Your task to perform on an android device: Search for "beats solo 3" on newegg, select the first entry, and add it to the cart. Image 0: 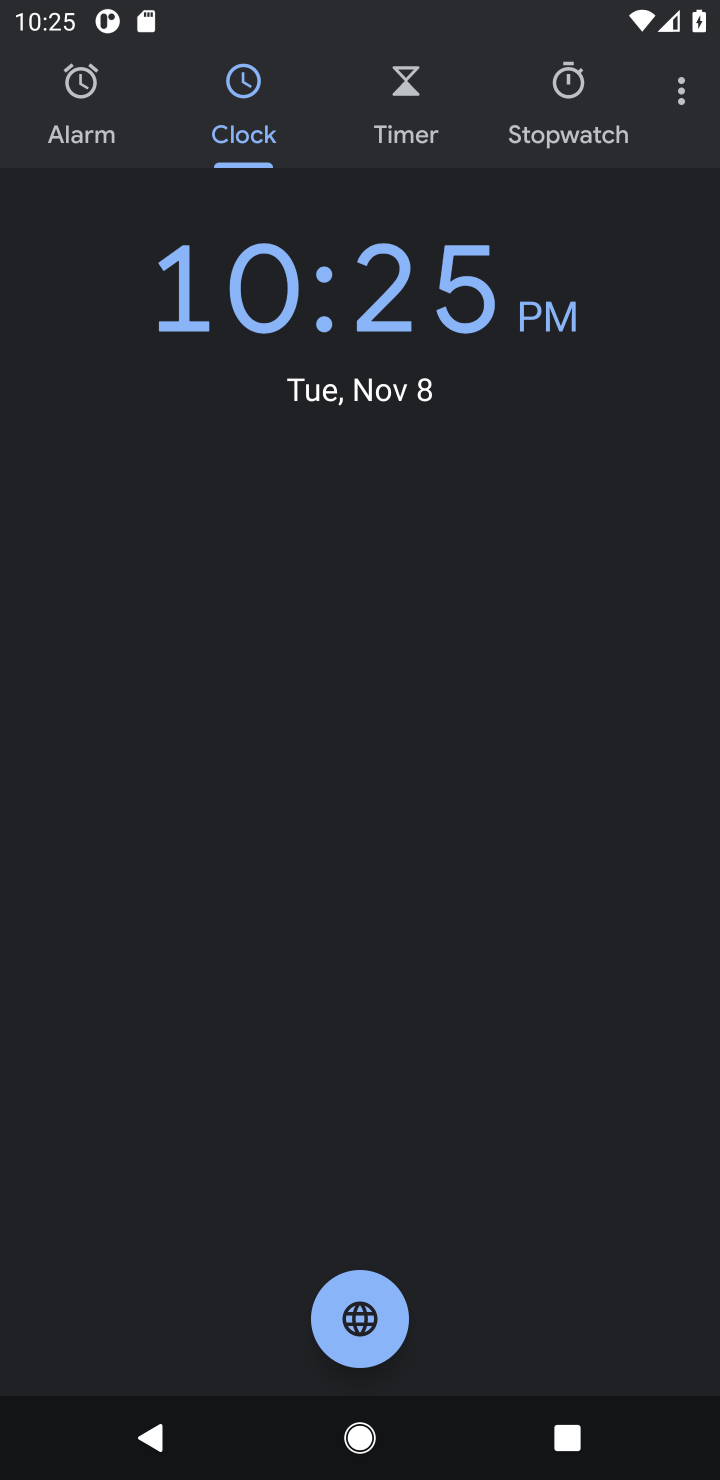
Step 0: press home button
Your task to perform on an android device: Search for "beats solo 3" on newegg, select the first entry, and add it to the cart. Image 1: 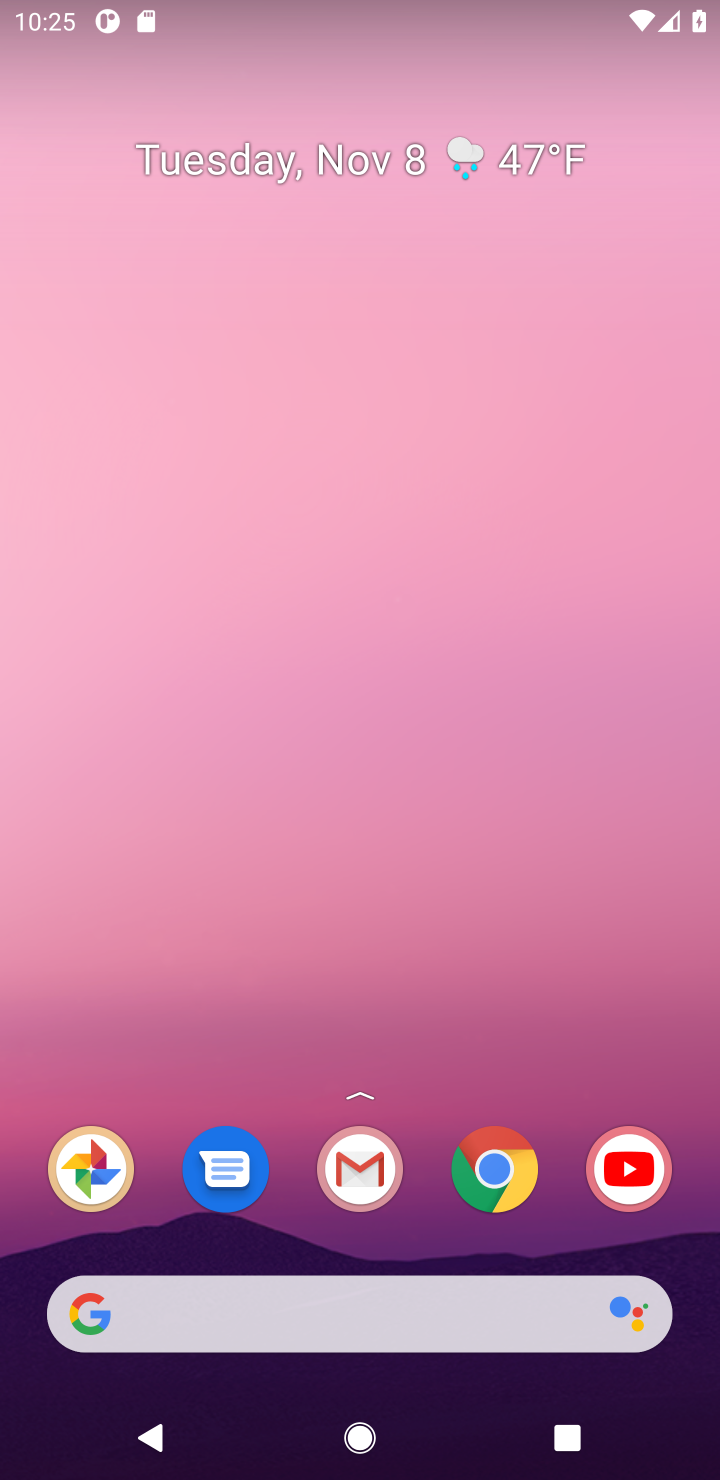
Step 1: click (484, 1180)
Your task to perform on an android device: Search for "beats solo 3" on newegg, select the first entry, and add it to the cart. Image 2: 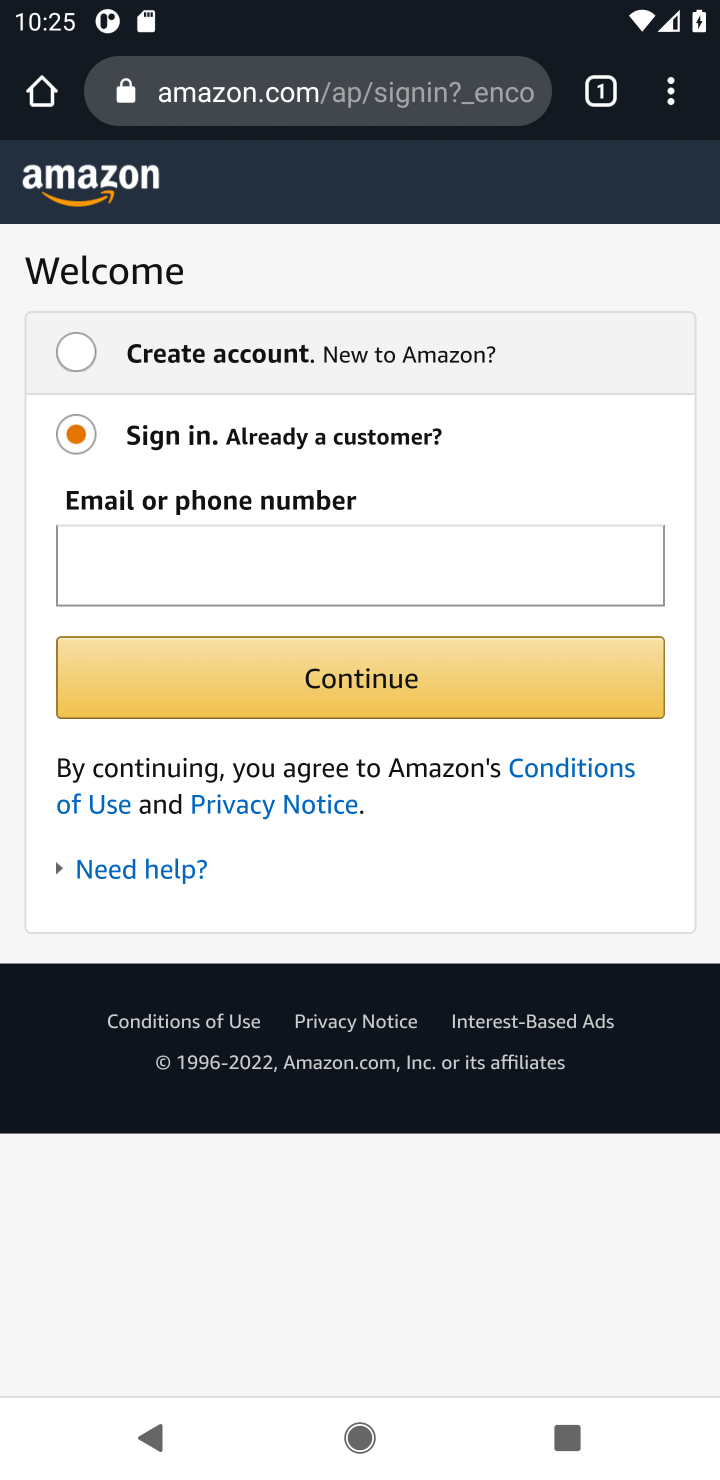
Step 2: click (447, 108)
Your task to perform on an android device: Search for "beats solo 3" on newegg, select the first entry, and add it to the cart. Image 3: 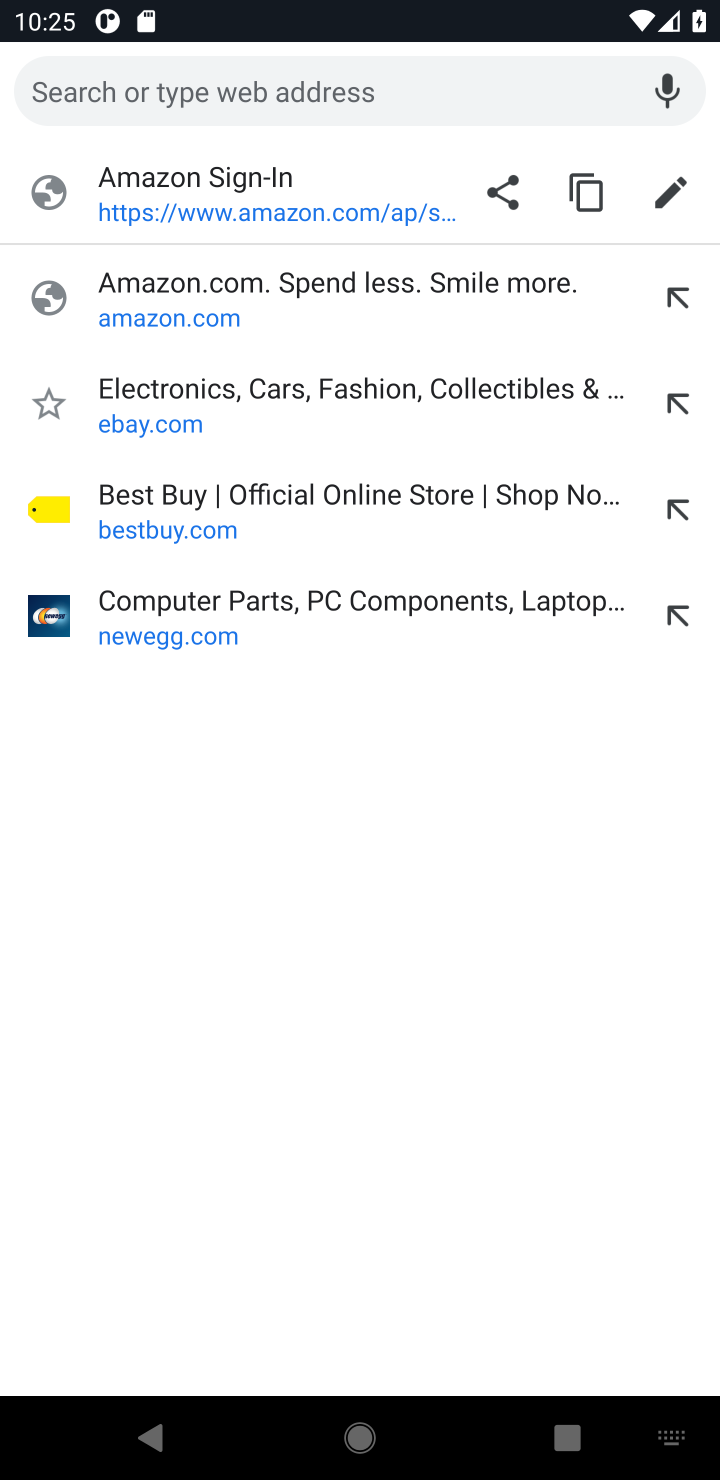
Step 3: type "newegg"
Your task to perform on an android device: Search for "beats solo 3" on newegg, select the first entry, and add it to the cart. Image 4: 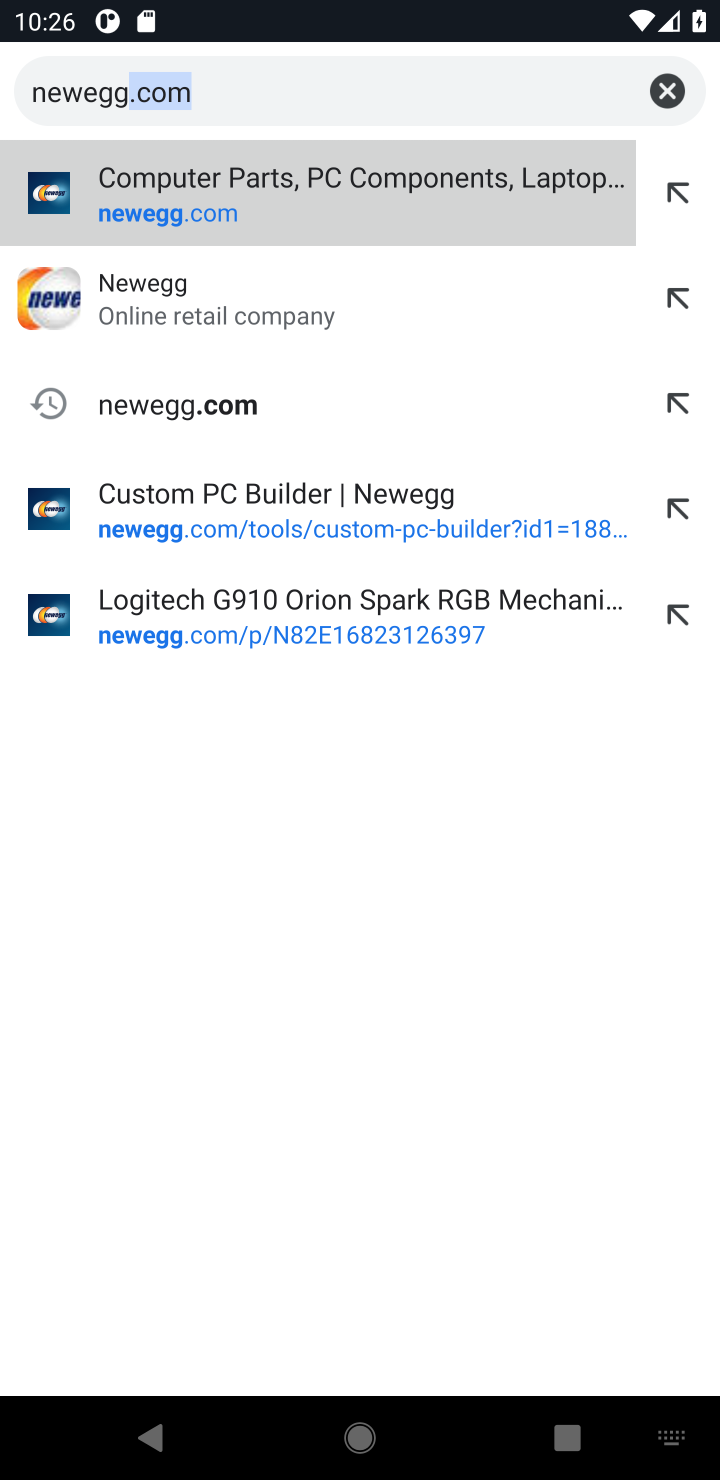
Step 4: click (472, 100)
Your task to perform on an android device: Search for "beats solo 3" on newegg, select the first entry, and add it to the cart. Image 5: 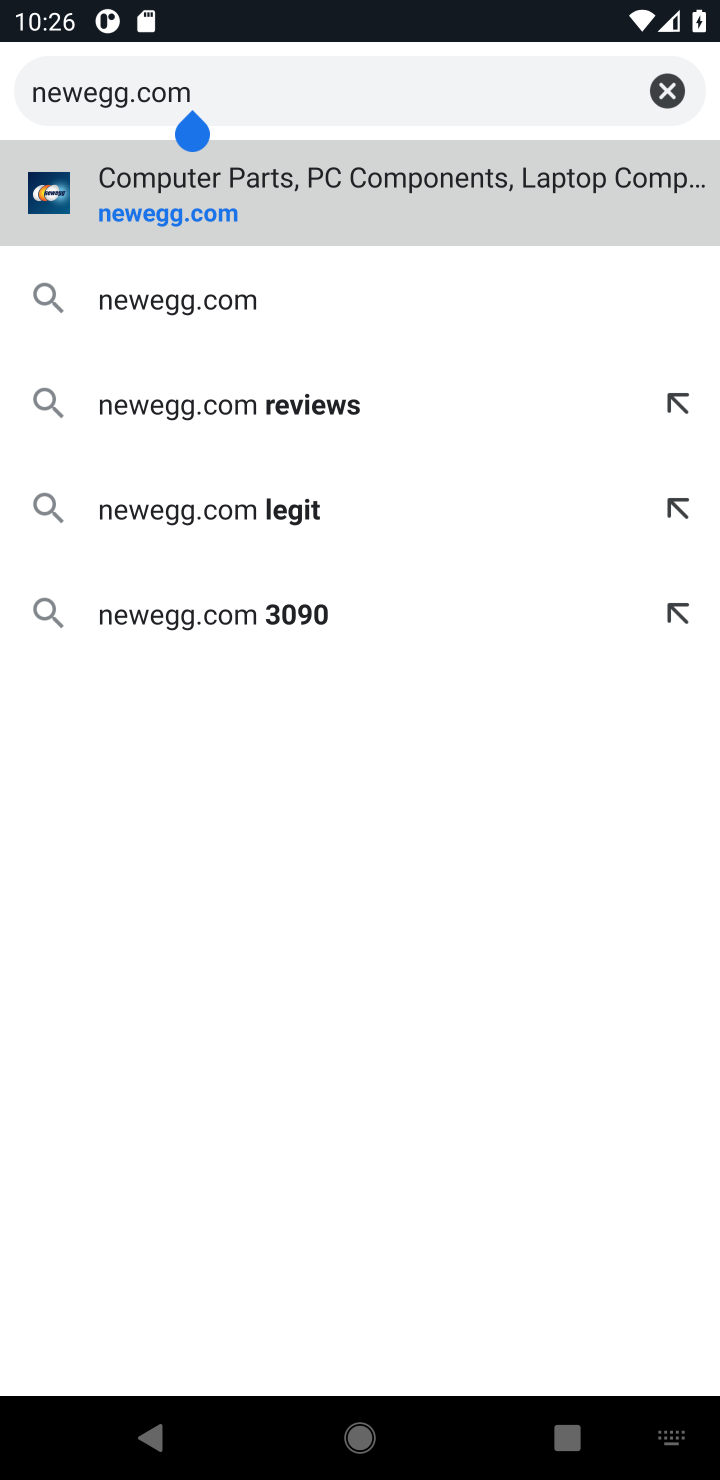
Step 5: click (225, 295)
Your task to perform on an android device: Search for "beats solo 3" on newegg, select the first entry, and add it to the cart. Image 6: 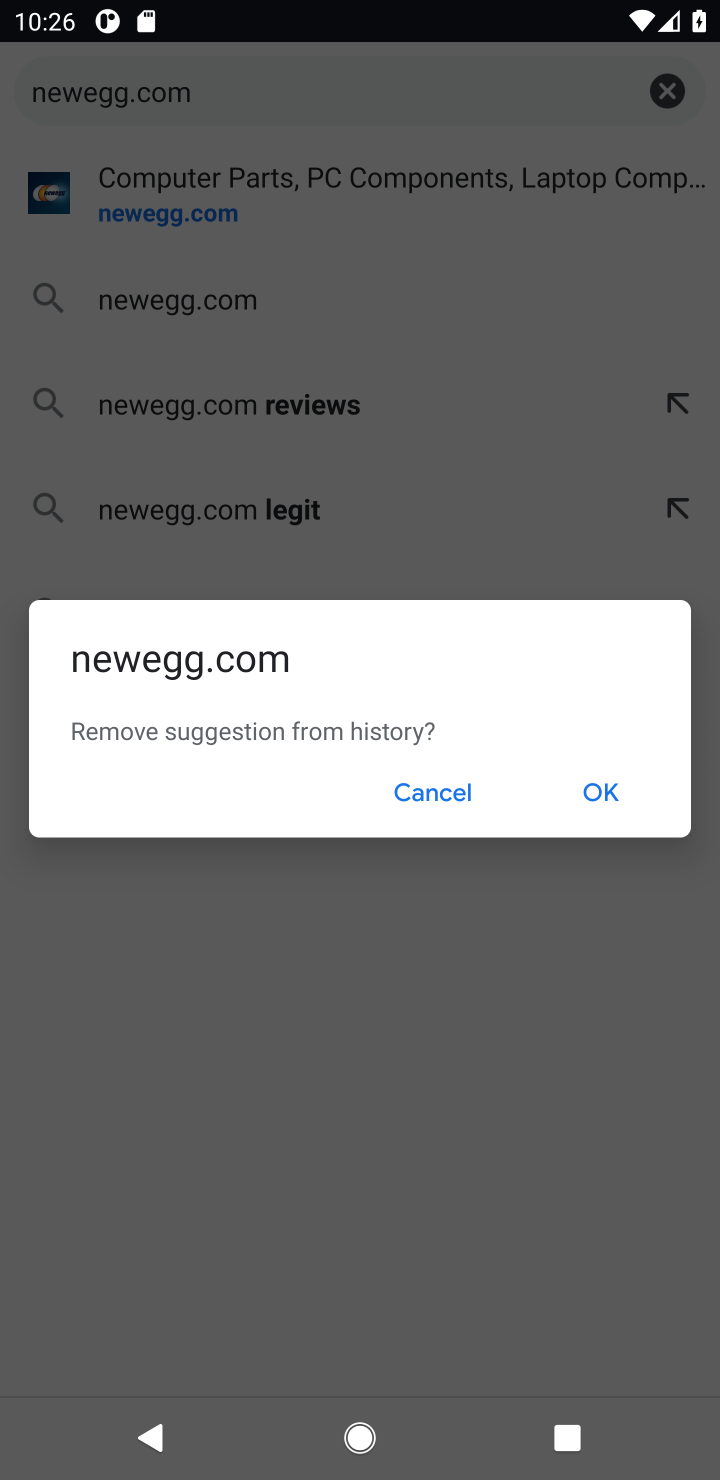
Step 6: click (615, 801)
Your task to perform on an android device: Search for "beats solo 3" on newegg, select the first entry, and add it to the cart. Image 7: 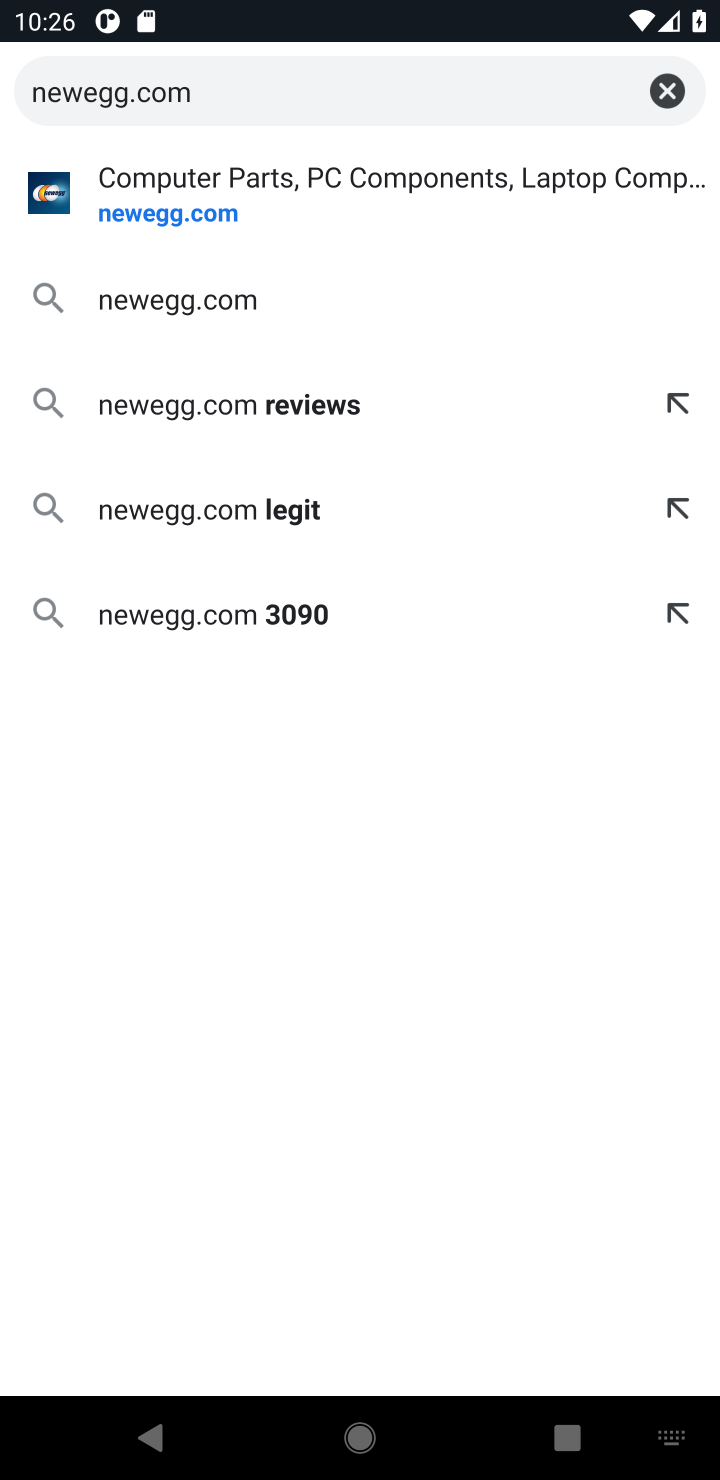
Step 7: click (204, 275)
Your task to perform on an android device: Search for "beats solo 3" on newegg, select the first entry, and add it to the cart. Image 8: 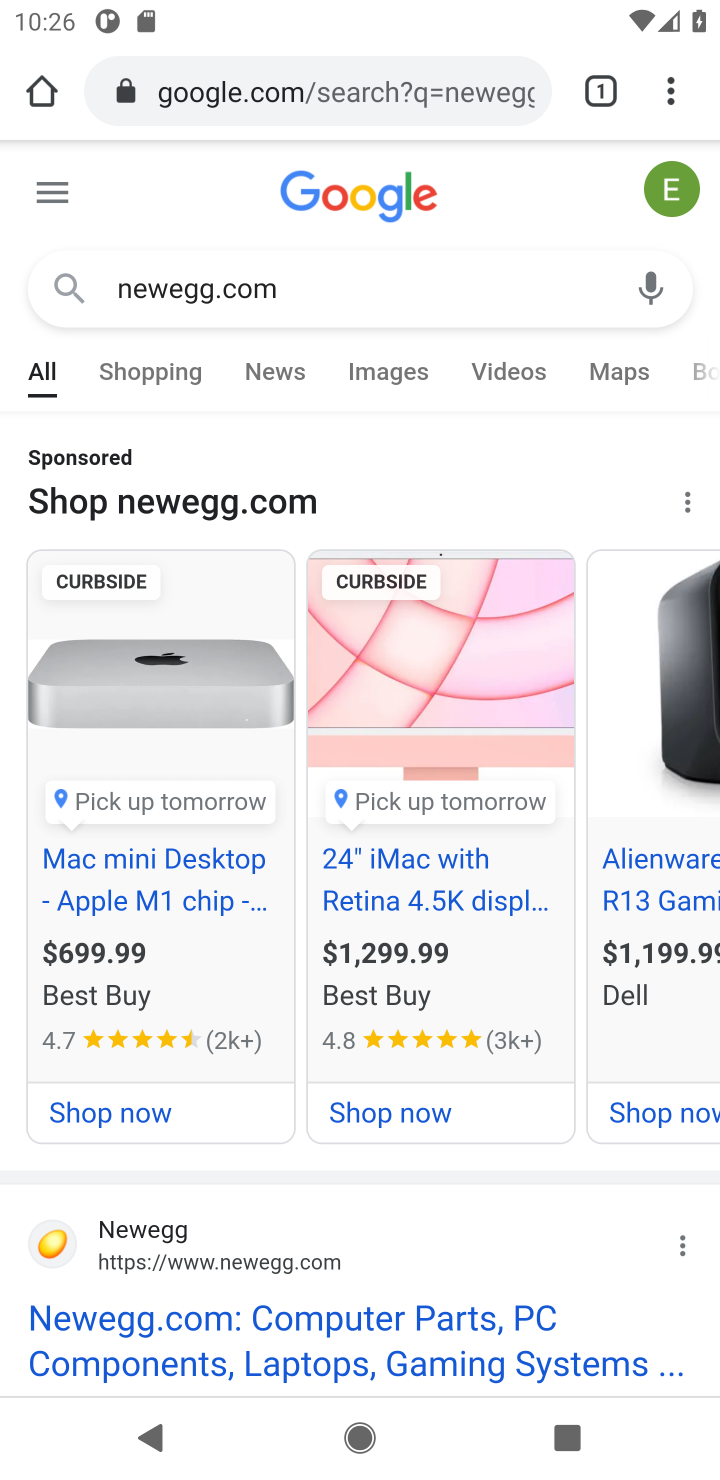
Step 8: click (314, 1260)
Your task to perform on an android device: Search for "beats solo 3" on newegg, select the first entry, and add it to the cart. Image 9: 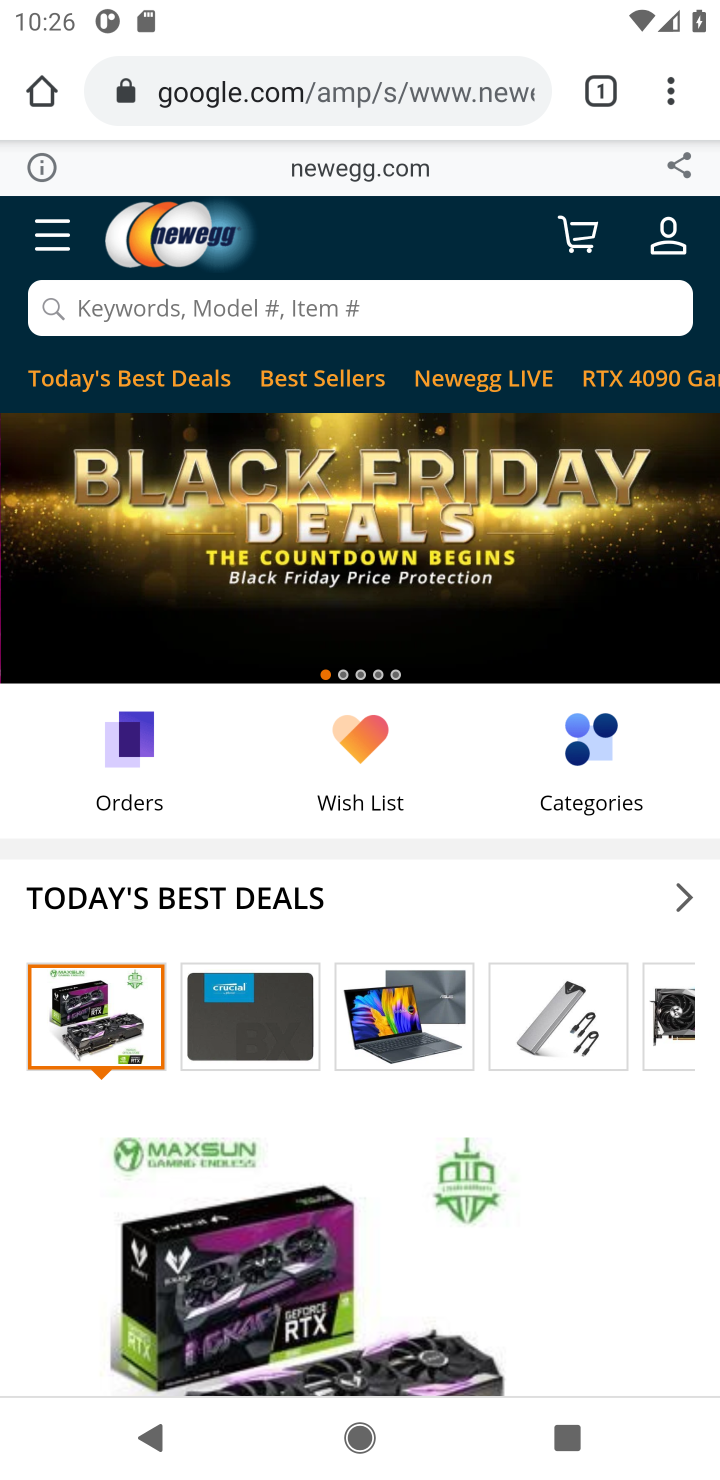
Step 9: click (518, 302)
Your task to perform on an android device: Search for "beats solo 3" on newegg, select the first entry, and add it to the cart. Image 10: 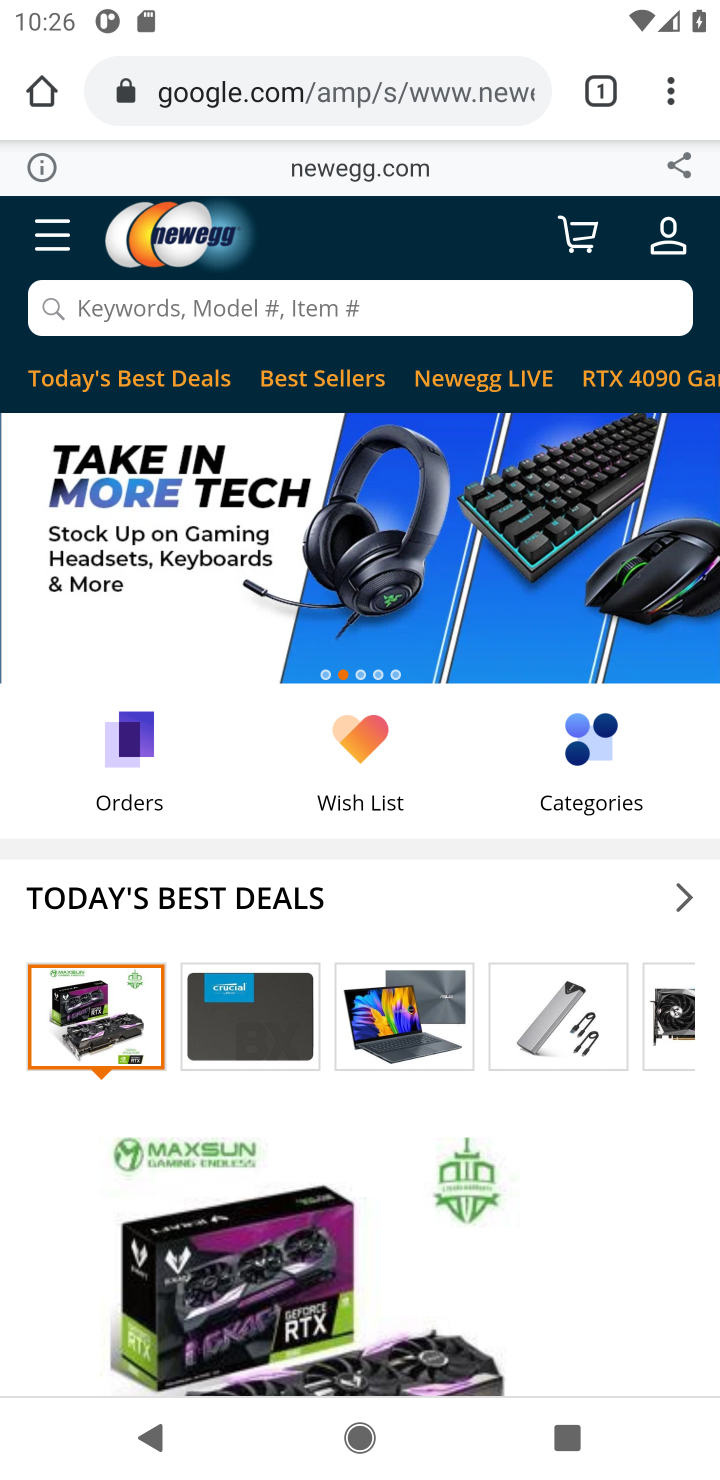
Step 10: type "beats solo 3"
Your task to perform on an android device: Search for "beats solo 3" on newegg, select the first entry, and add it to the cart. Image 11: 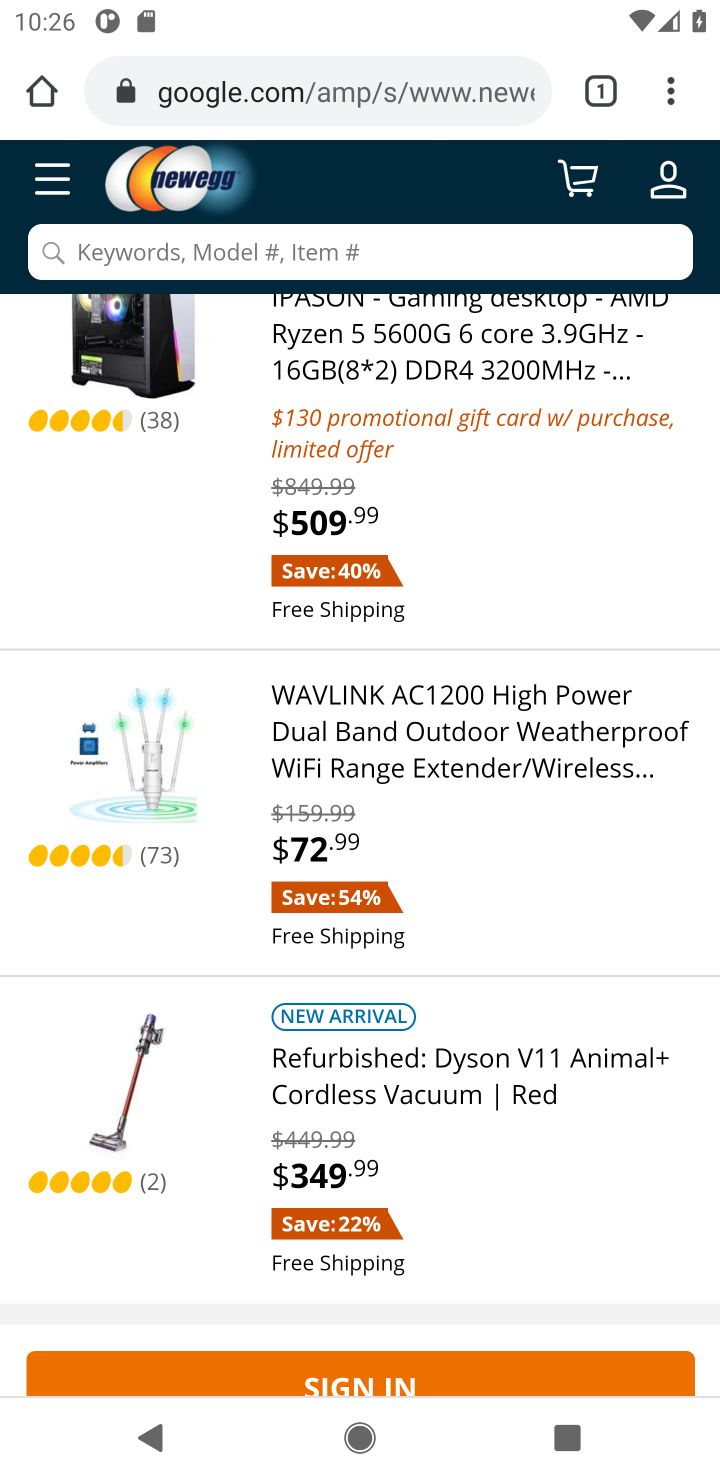
Step 11: click (520, 247)
Your task to perform on an android device: Search for "beats solo 3" on newegg, select the first entry, and add it to the cart. Image 12: 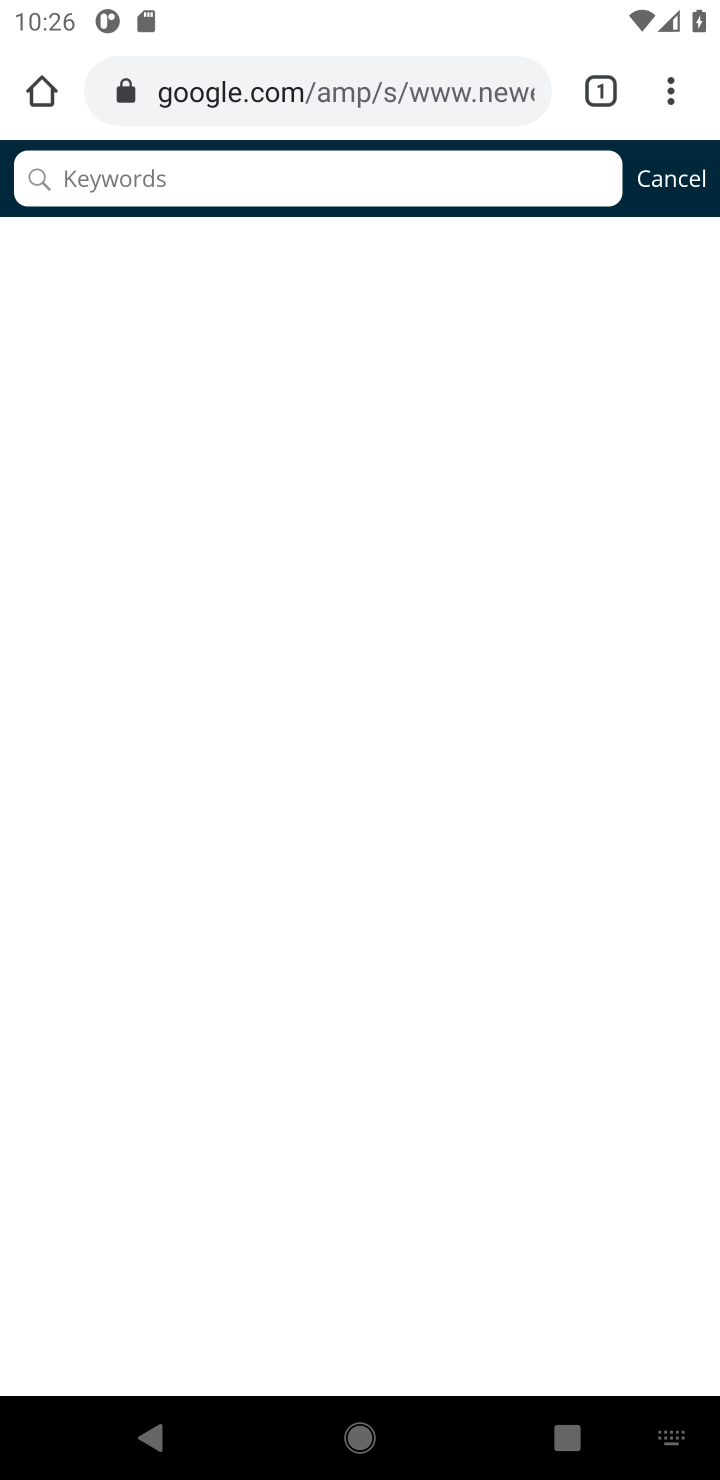
Step 12: type "beats solo 3"
Your task to perform on an android device: Search for "beats solo 3" on newegg, select the first entry, and add it to the cart. Image 13: 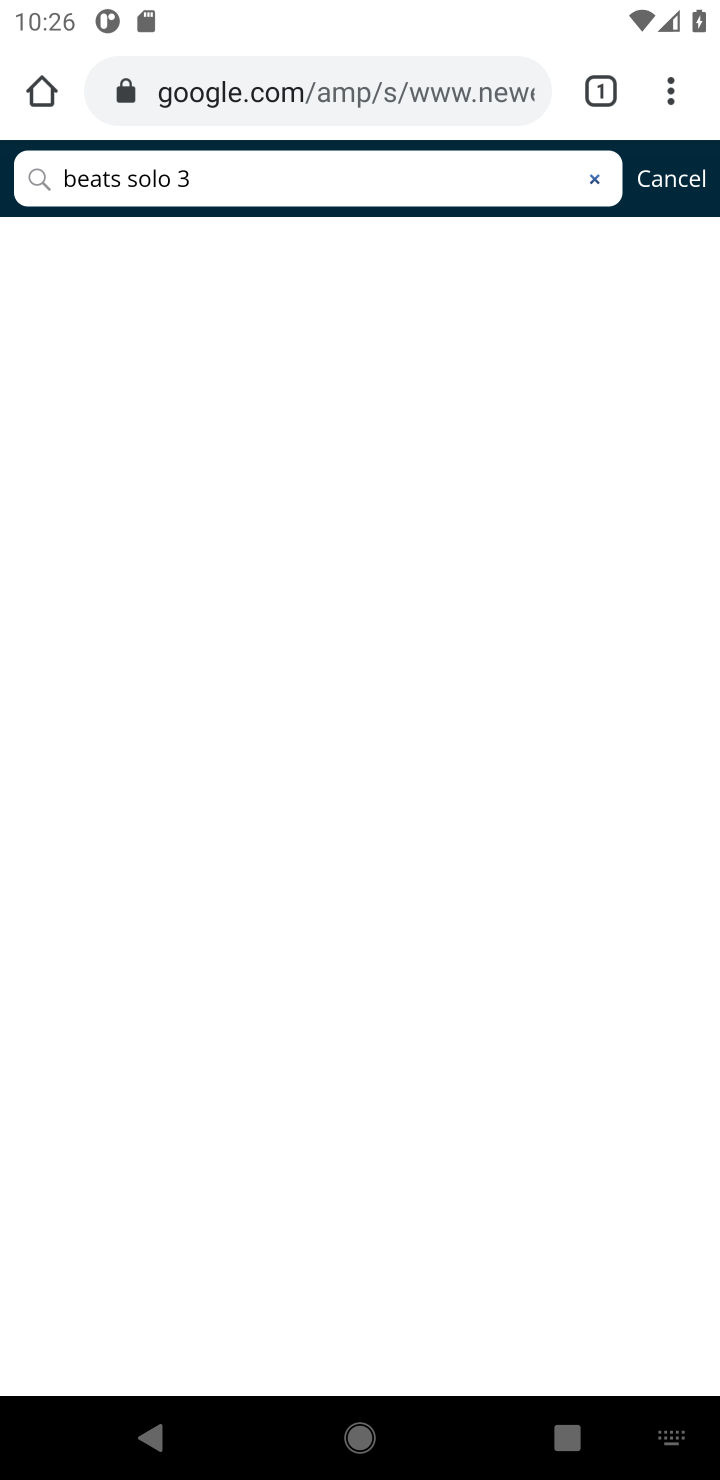
Step 13: click (454, 484)
Your task to perform on an android device: Search for "beats solo 3" on newegg, select the first entry, and add it to the cart. Image 14: 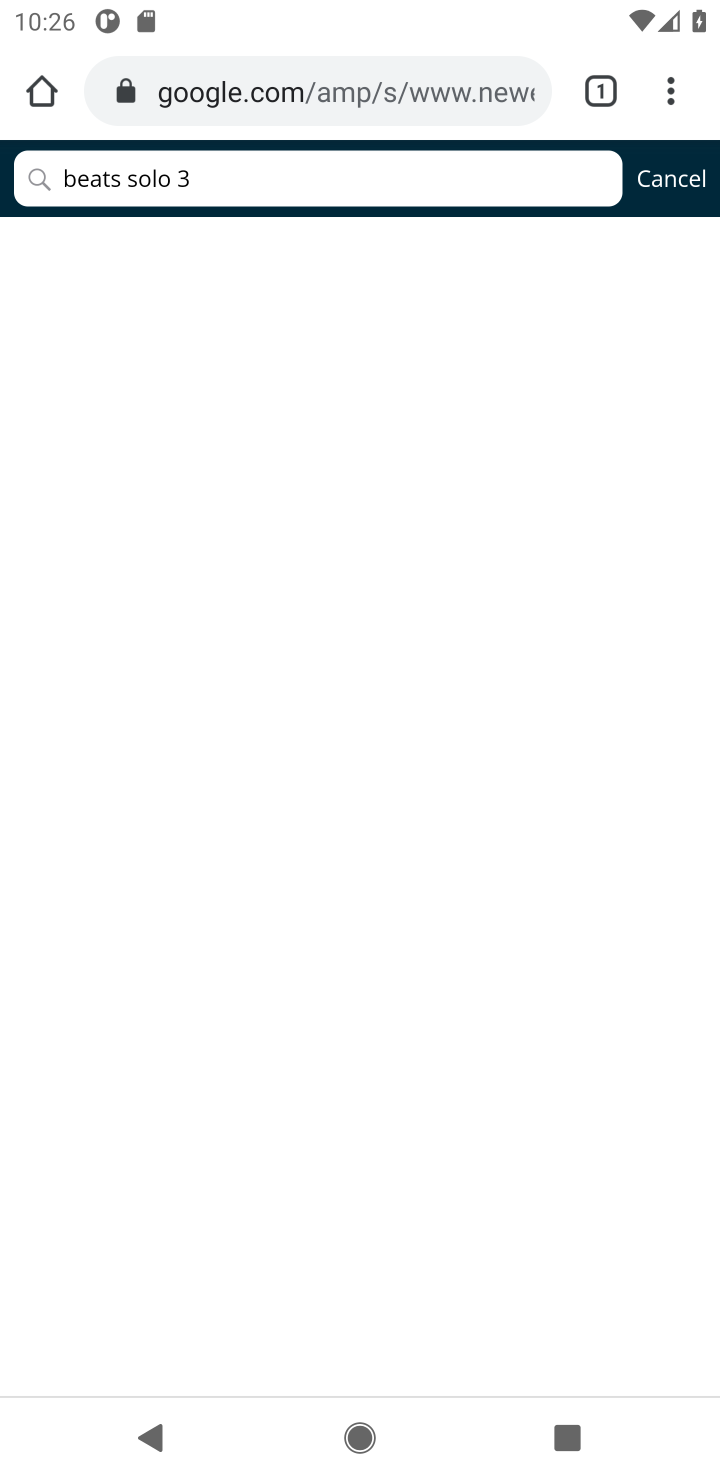
Step 14: click (542, 172)
Your task to perform on an android device: Search for "beats solo 3" on newegg, select the first entry, and add it to the cart. Image 15: 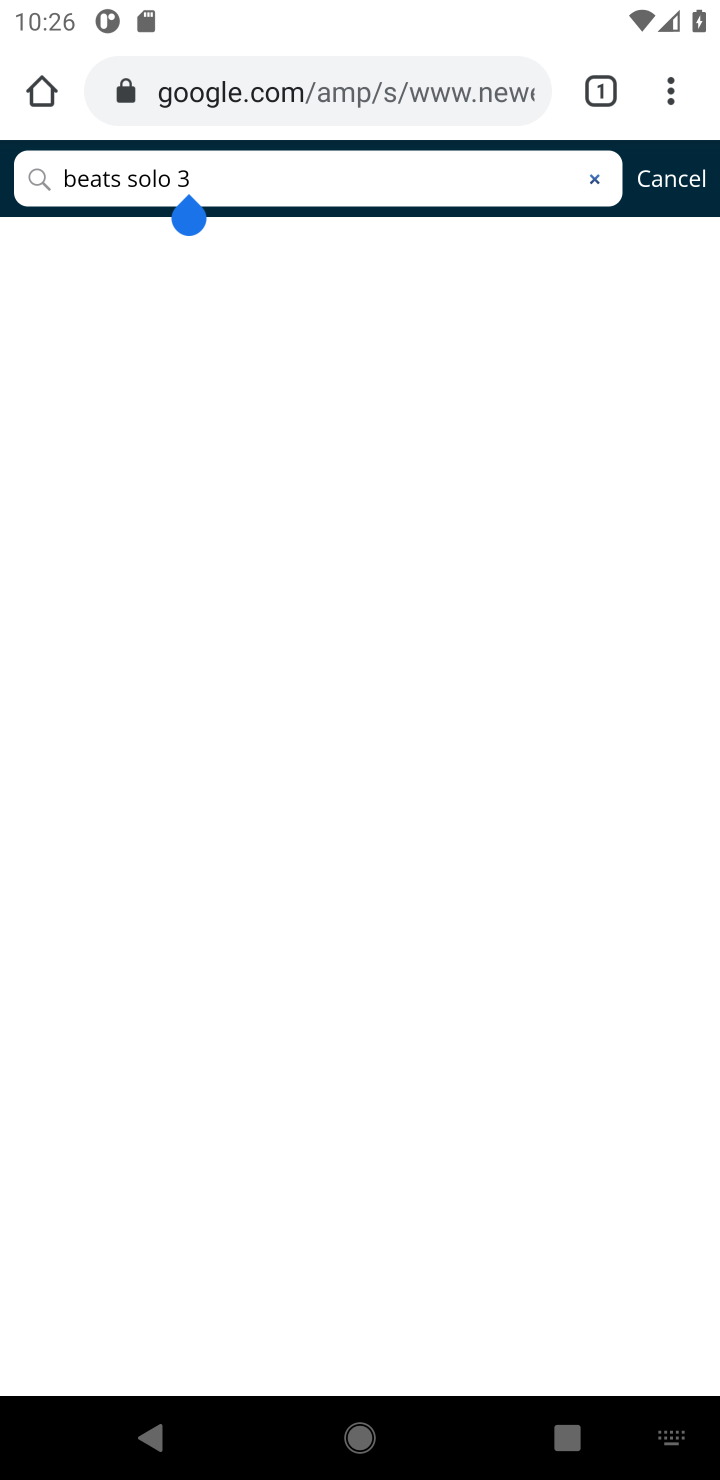
Step 15: task complete